Your task to perform on an android device: turn off translation in the chrome app Image 0: 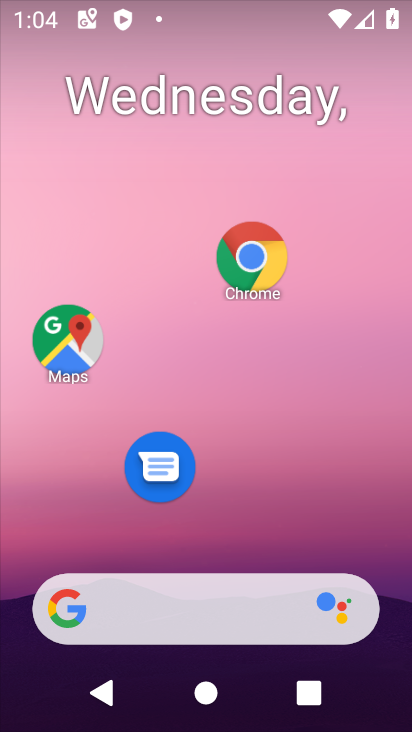
Step 0: click (264, 270)
Your task to perform on an android device: turn off translation in the chrome app Image 1: 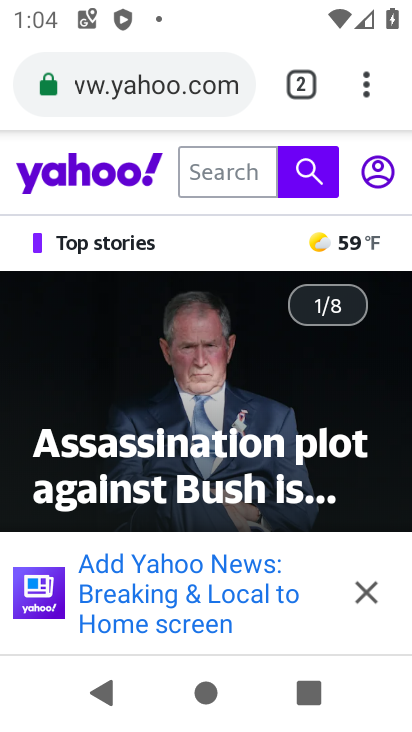
Step 1: drag from (353, 86) to (175, 524)
Your task to perform on an android device: turn off translation in the chrome app Image 2: 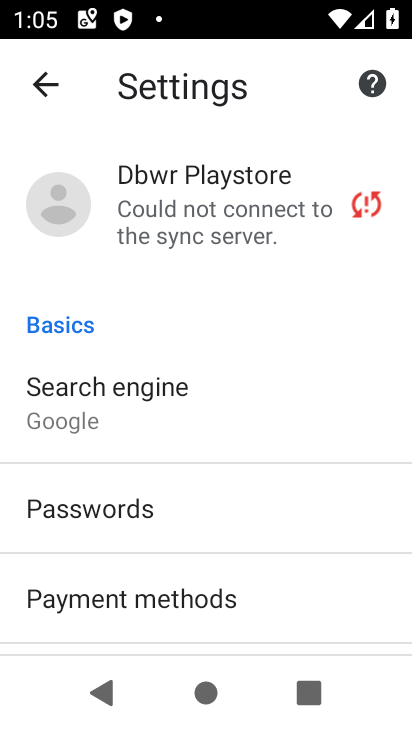
Step 2: drag from (184, 553) to (134, 61)
Your task to perform on an android device: turn off translation in the chrome app Image 3: 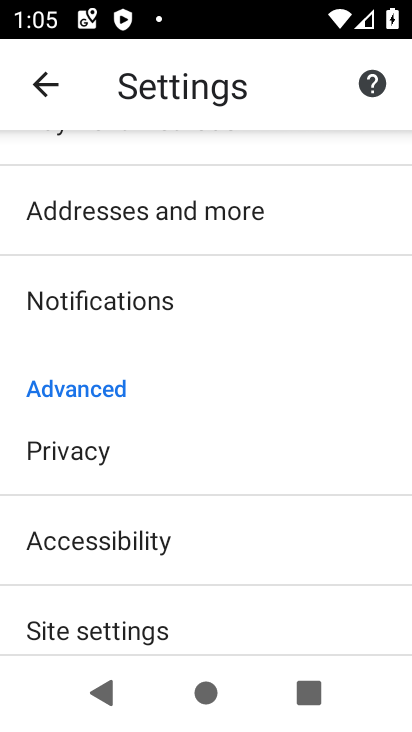
Step 3: click (173, 620)
Your task to perform on an android device: turn off translation in the chrome app Image 4: 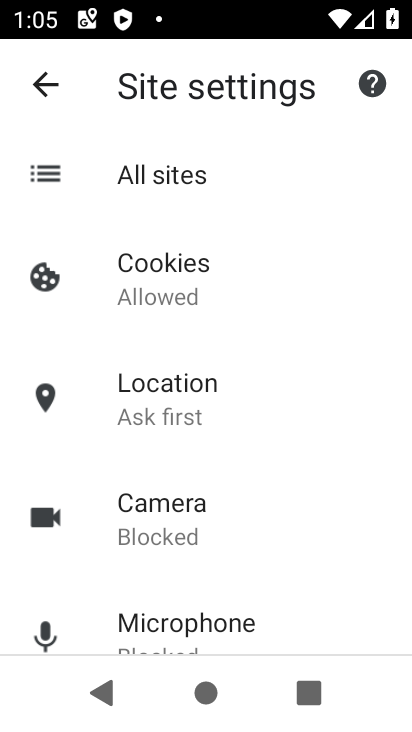
Step 4: drag from (200, 583) to (149, 237)
Your task to perform on an android device: turn off translation in the chrome app Image 5: 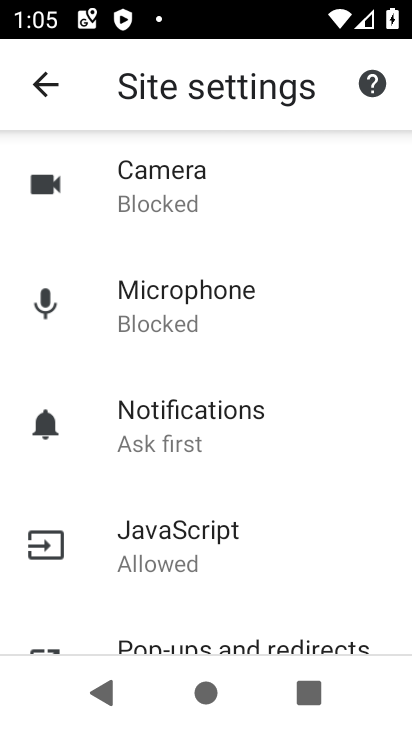
Step 5: click (62, 88)
Your task to perform on an android device: turn off translation in the chrome app Image 6: 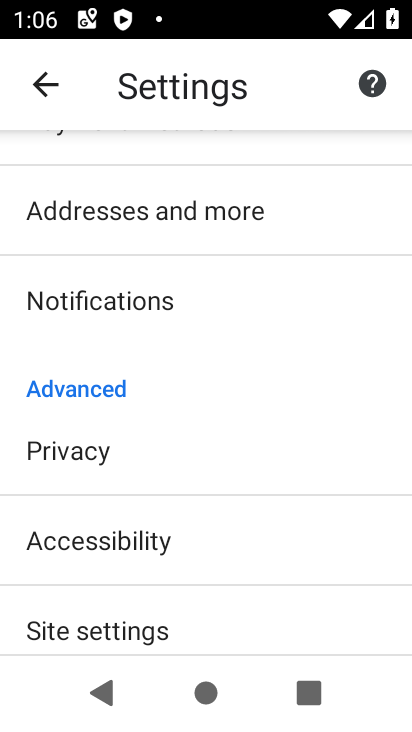
Step 6: drag from (179, 623) to (134, 277)
Your task to perform on an android device: turn off translation in the chrome app Image 7: 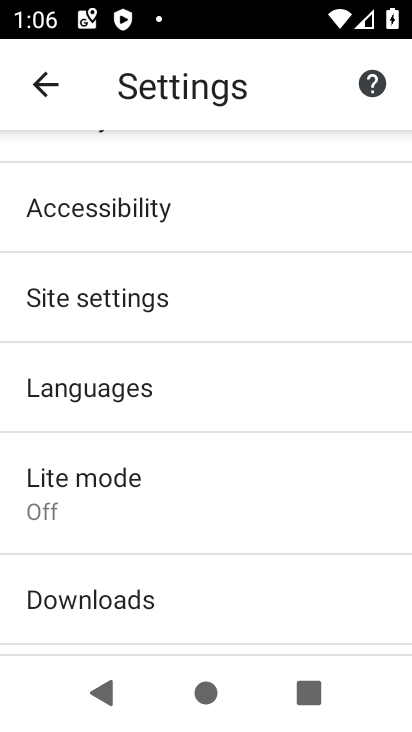
Step 7: click (39, 376)
Your task to perform on an android device: turn off translation in the chrome app Image 8: 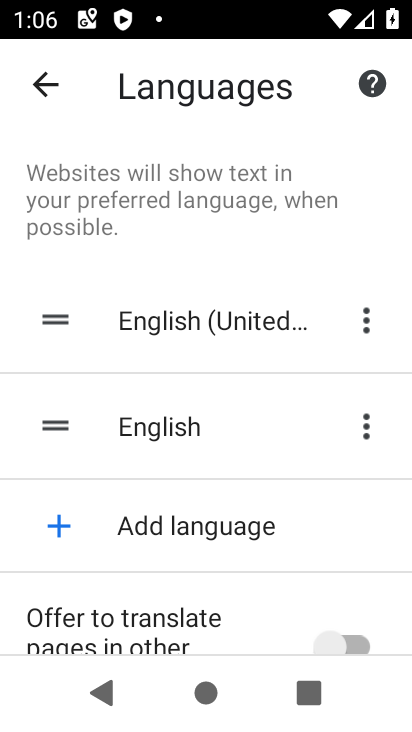
Step 8: click (264, 613)
Your task to perform on an android device: turn off translation in the chrome app Image 9: 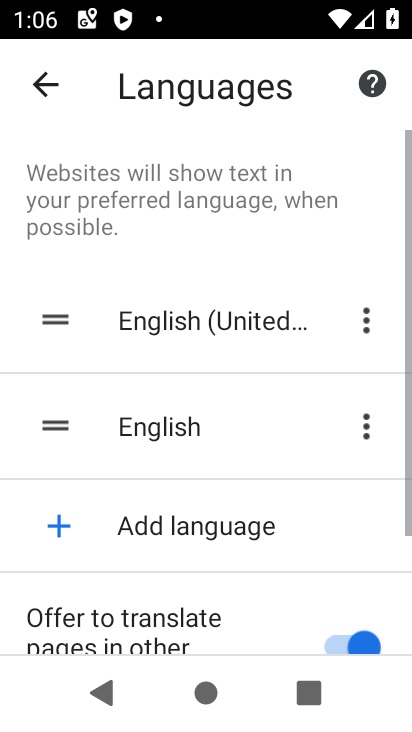
Step 9: click (264, 613)
Your task to perform on an android device: turn off translation in the chrome app Image 10: 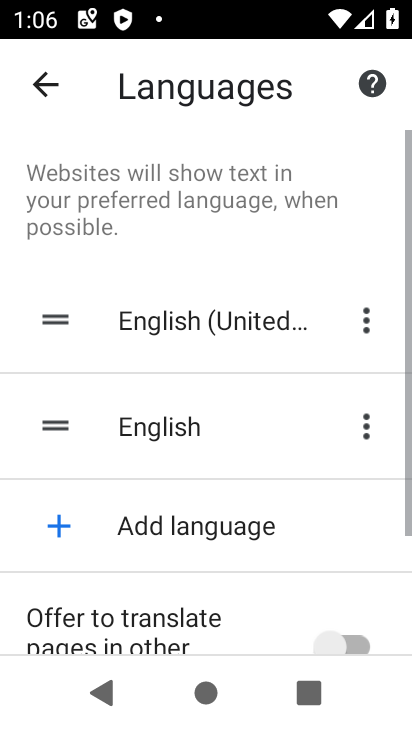
Step 10: task complete